Your task to perform on an android device: When is my next appointment? Image 0: 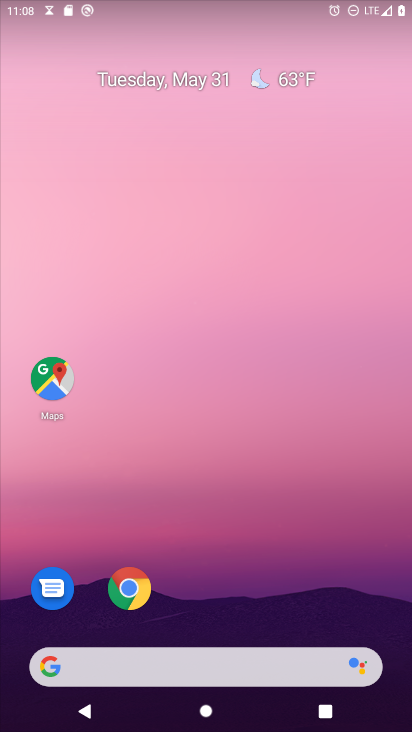
Step 0: drag from (244, 601) to (162, 134)
Your task to perform on an android device: When is my next appointment? Image 1: 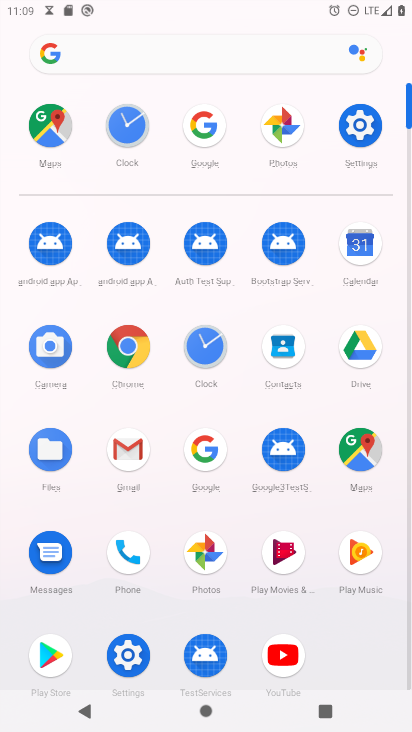
Step 1: click (361, 244)
Your task to perform on an android device: When is my next appointment? Image 2: 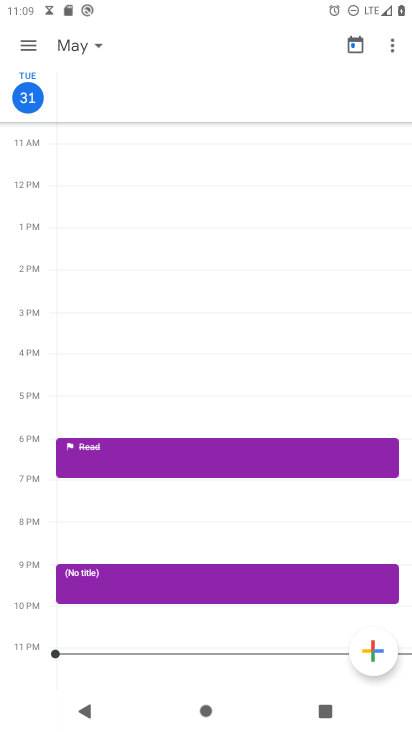
Step 2: click (355, 43)
Your task to perform on an android device: When is my next appointment? Image 3: 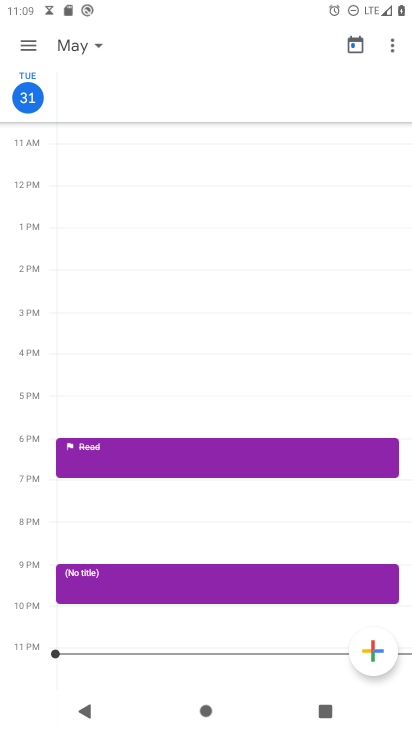
Step 3: click (101, 44)
Your task to perform on an android device: When is my next appointment? Image 4: 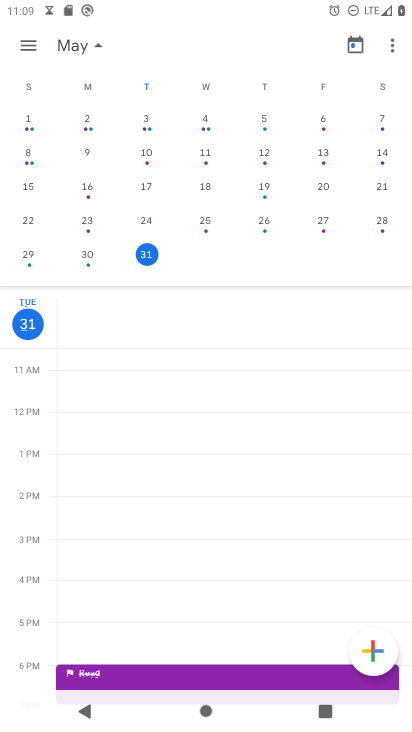
Step 4: drag from (365, 187) to (58, 197)
Your task to perform on an android device: When is my next appointment? Image 5: 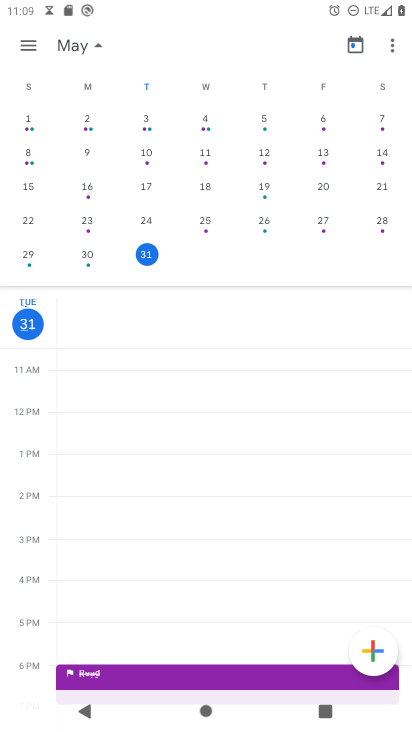
Step 5: drag from (349, 162) to (19, 172)
Your task to perform on an android device: When is my next appointment? Image 6: 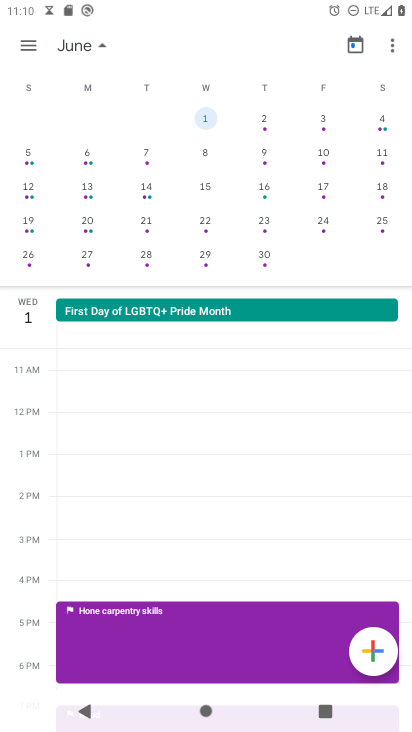
Step 6: click (207, 121)
Your task to perform on an android device: When is my next appointment? Image 7: 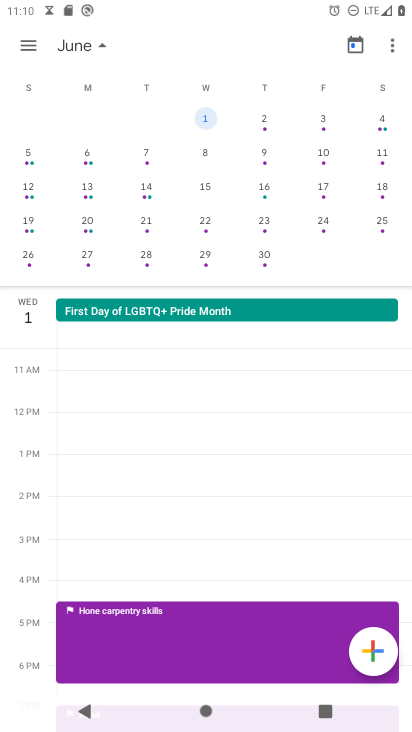
Step 7: click (26, 42)
Your task to perform on an android device: When is my next appointment? Image 8: 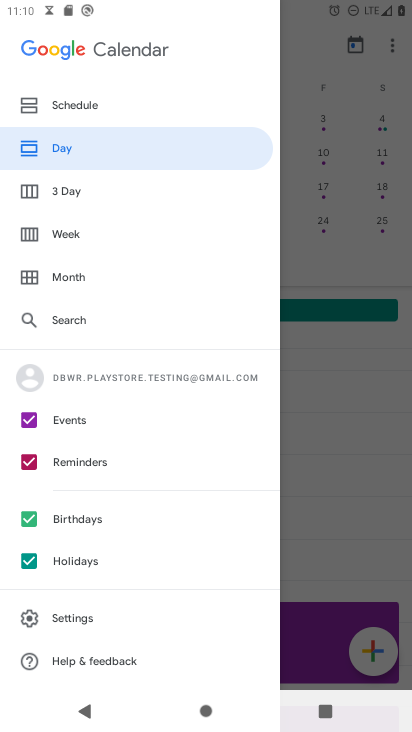
Step 8: click (69, 98)
Your task to perform on an android device: When is my next appointment? Image 9: 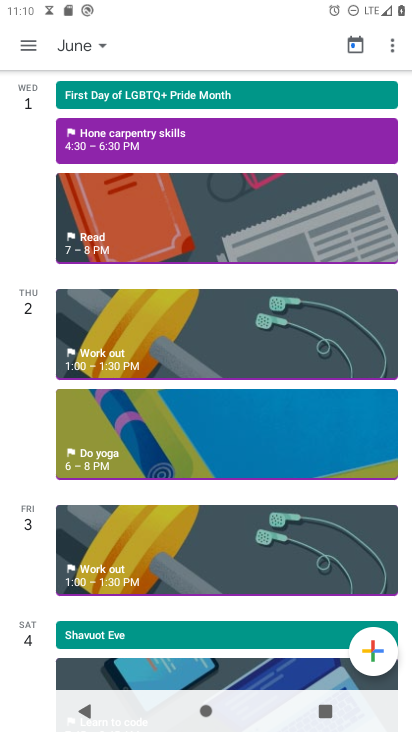
Step 9: task complete